Your task to perform on an android device: Add corsair k70 to the cart on walmart, then select checkout. Image 0: 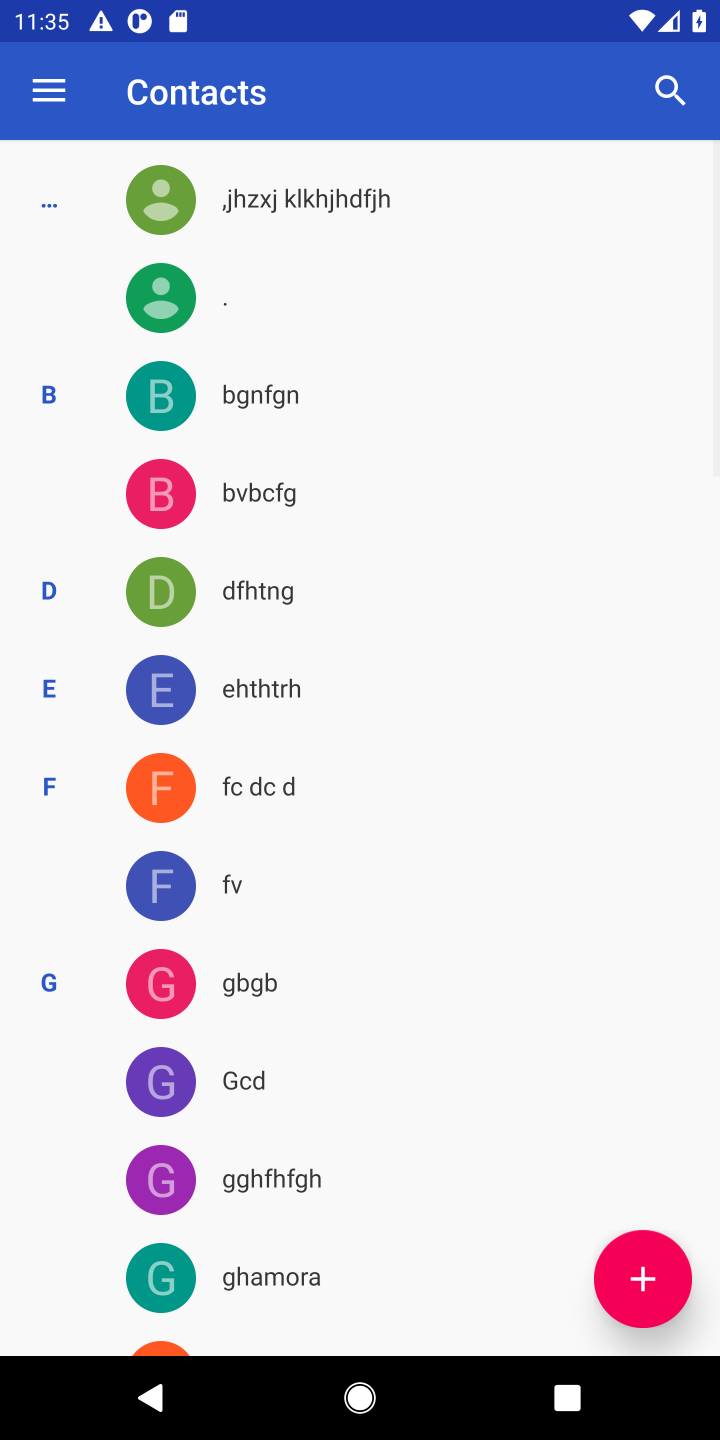
Step 0: press home button
Your task to perform on an android device: Add corsair k70 to the cart on walmart, then select checkout. Image 1: 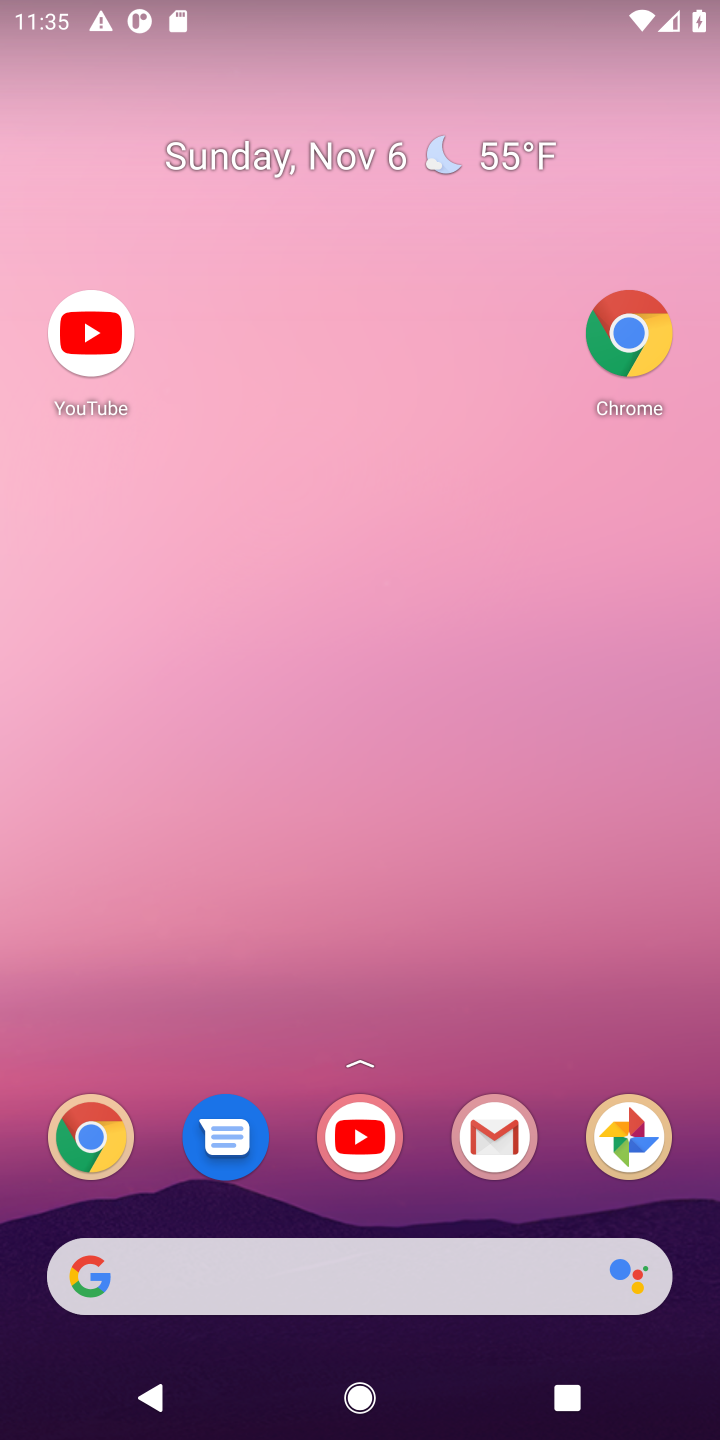
Step 1: drag from (414, 1213) to (322, 175)
Your task to perform on an android device: Add corsair k70 to the cart on walmart, then select checkout. Image 2: 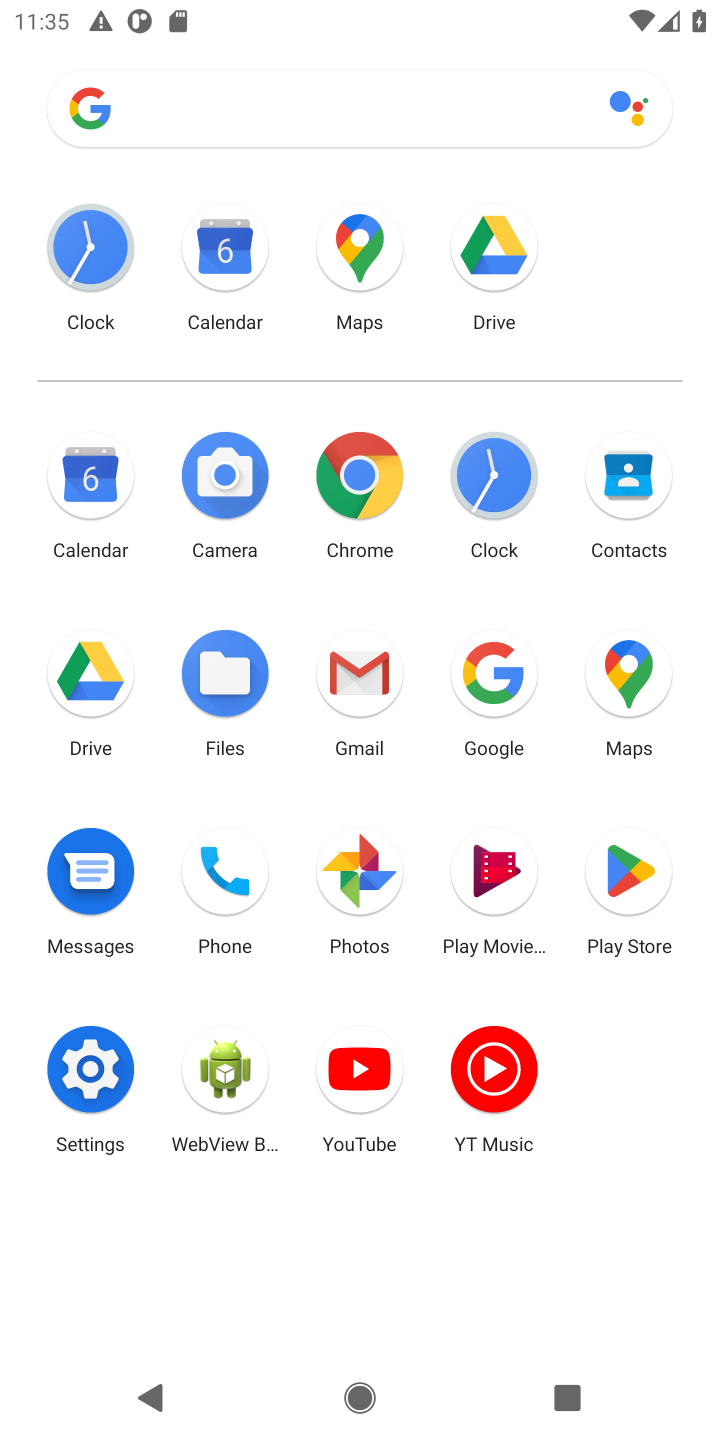
Step 2: click (361, 490)
Your task to perform on an android device: Add corsair k70 to the cart on walmart, then select checkout. Image 3: 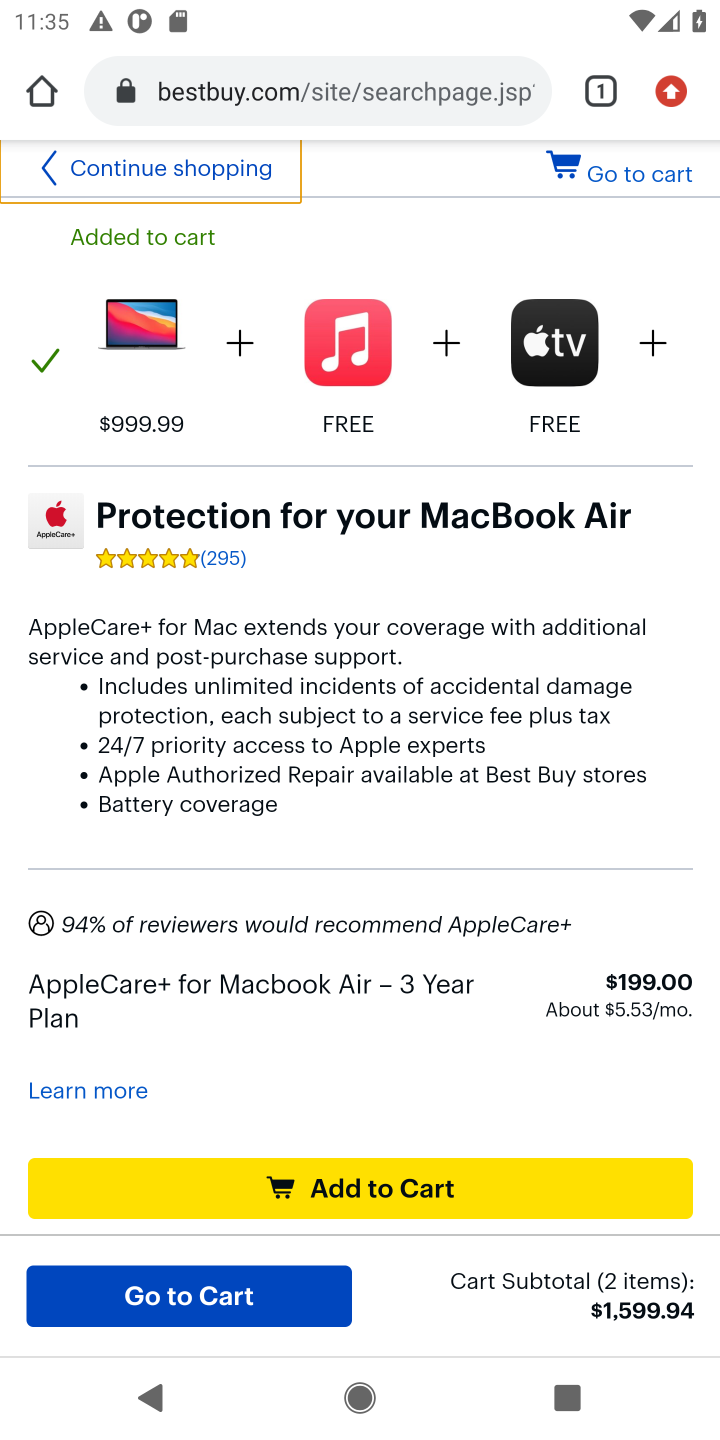
Step 3: click (435, 74)
Your task to perform on an android device: Add corsair k70 to the cart on walmart, then select checkout. Image 4: 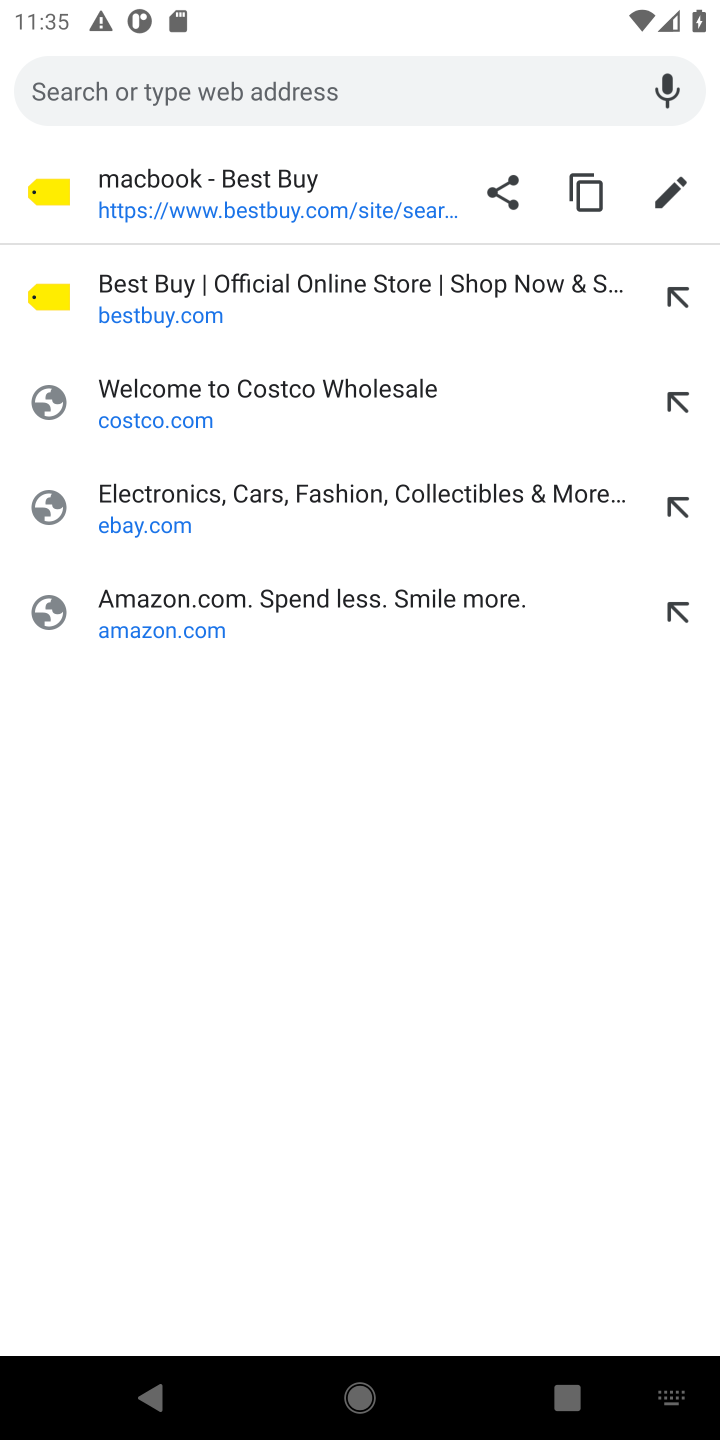
Step 4: type "walmart.com"
Your task to perform on an android device: Add corsair k70 to the cart on walmart, then select checkout. Image 5: 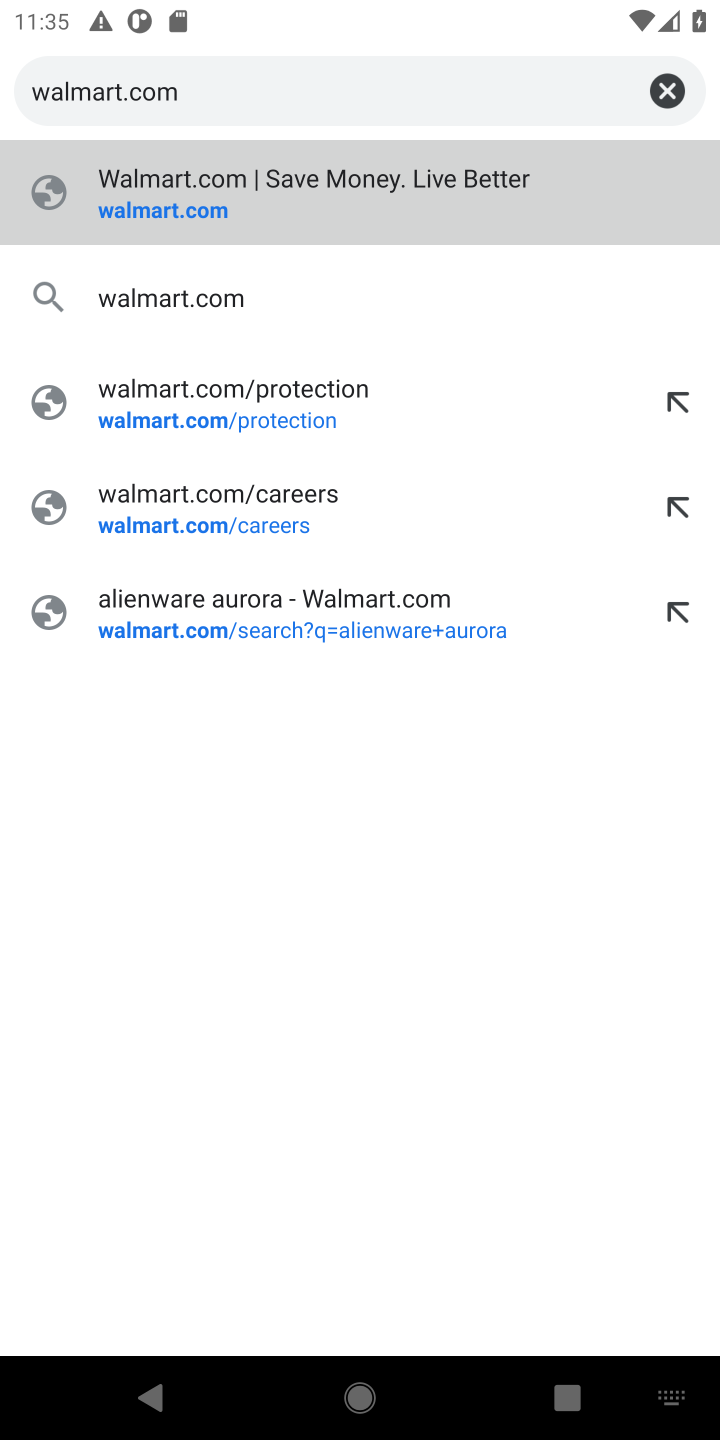
Step 5: press enter
Your task to perform on an android device: Add corsair k70 to the cart on walmart, then select checkout. Image 6: 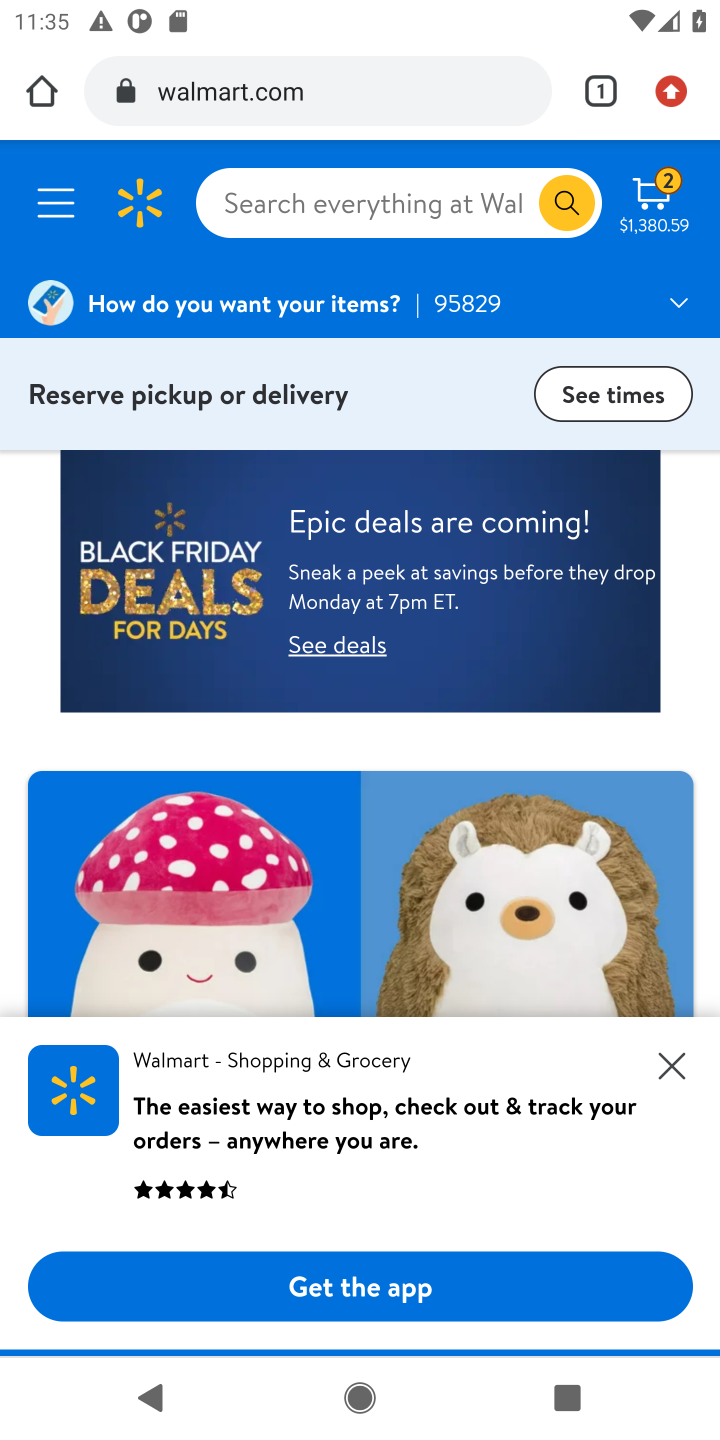
Step 6: click (274, 195)
Your task to perform on an android device: Add corsair k70 to the cart on walmart, then select checkout. Image 7: 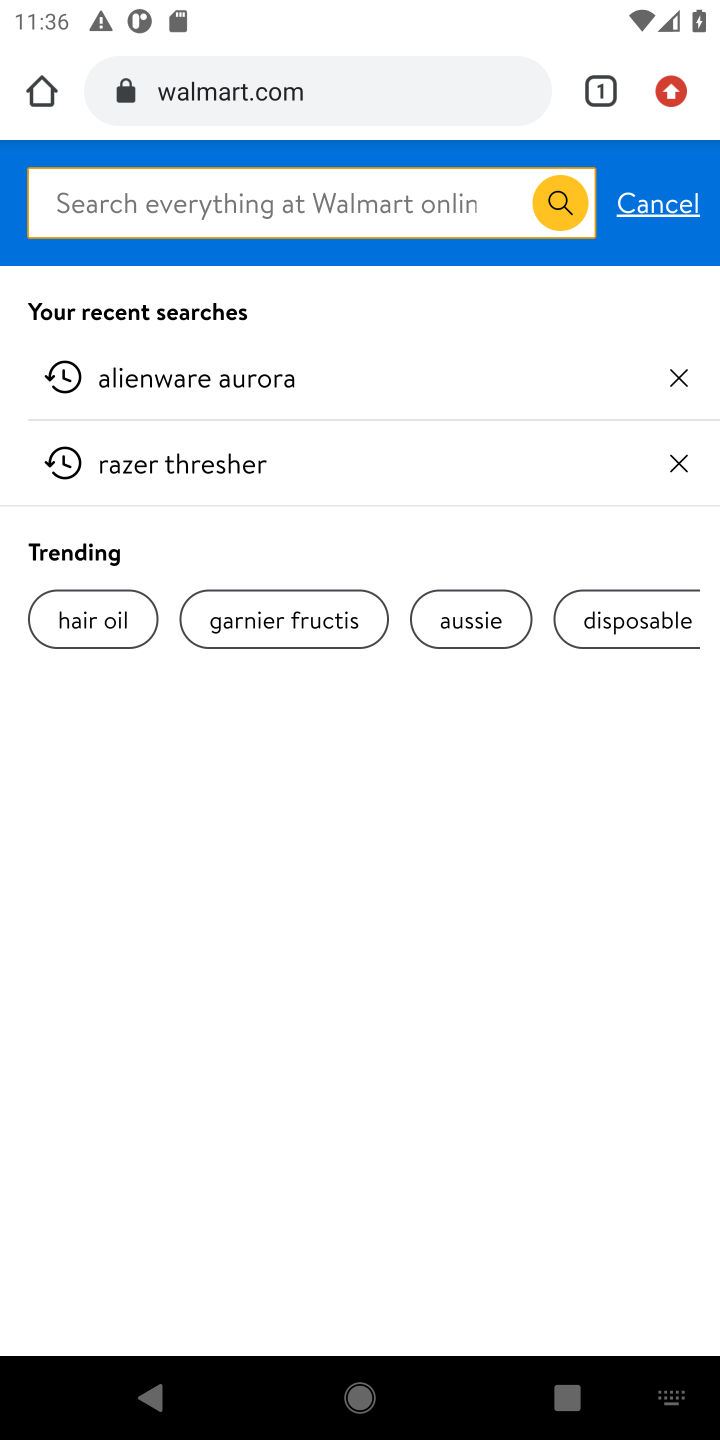
Step 7: type "corsair k70"
Your task to perform on an android device: Add corsair k70 to the cart on walmart, then select checkout. Image 8: 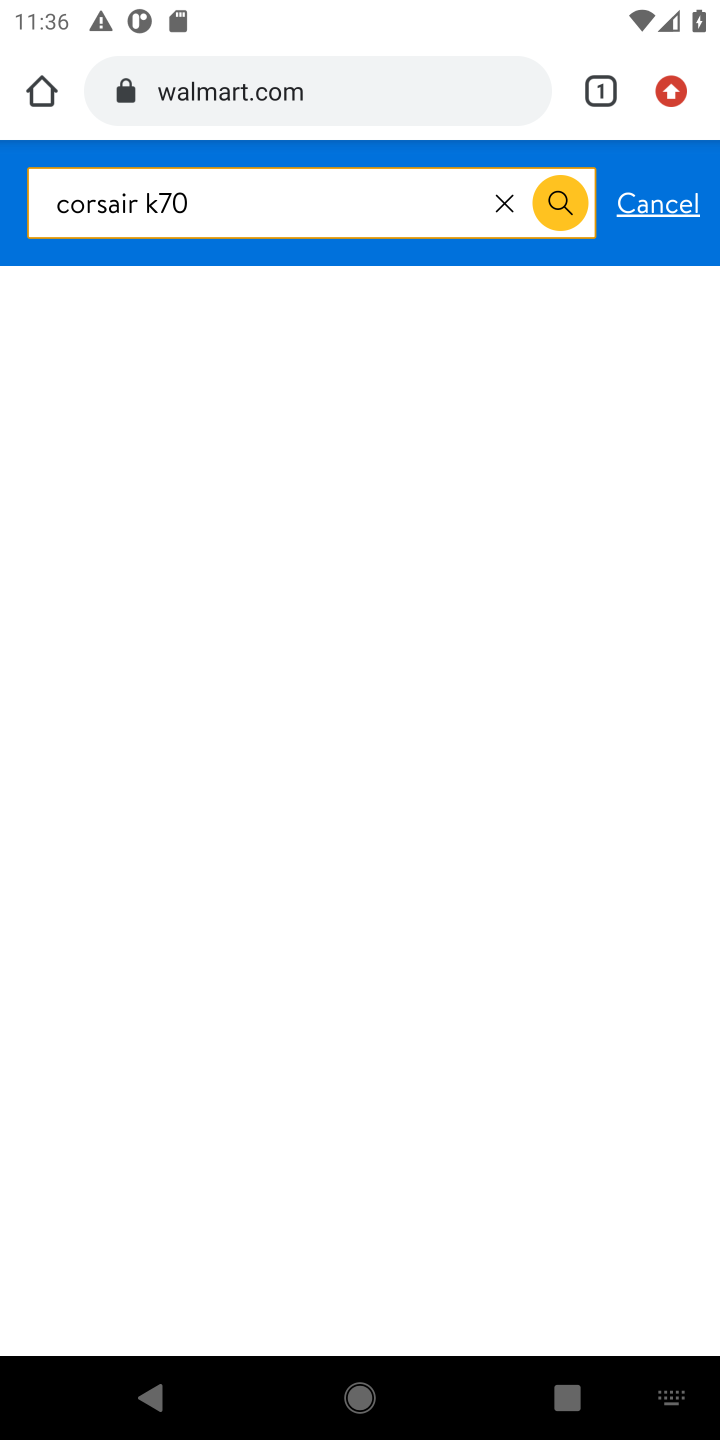
Step 8: press enter
Your task to perform on an android device: Add corsair k70 to the cart on walmart, then select checkout. Image 9: 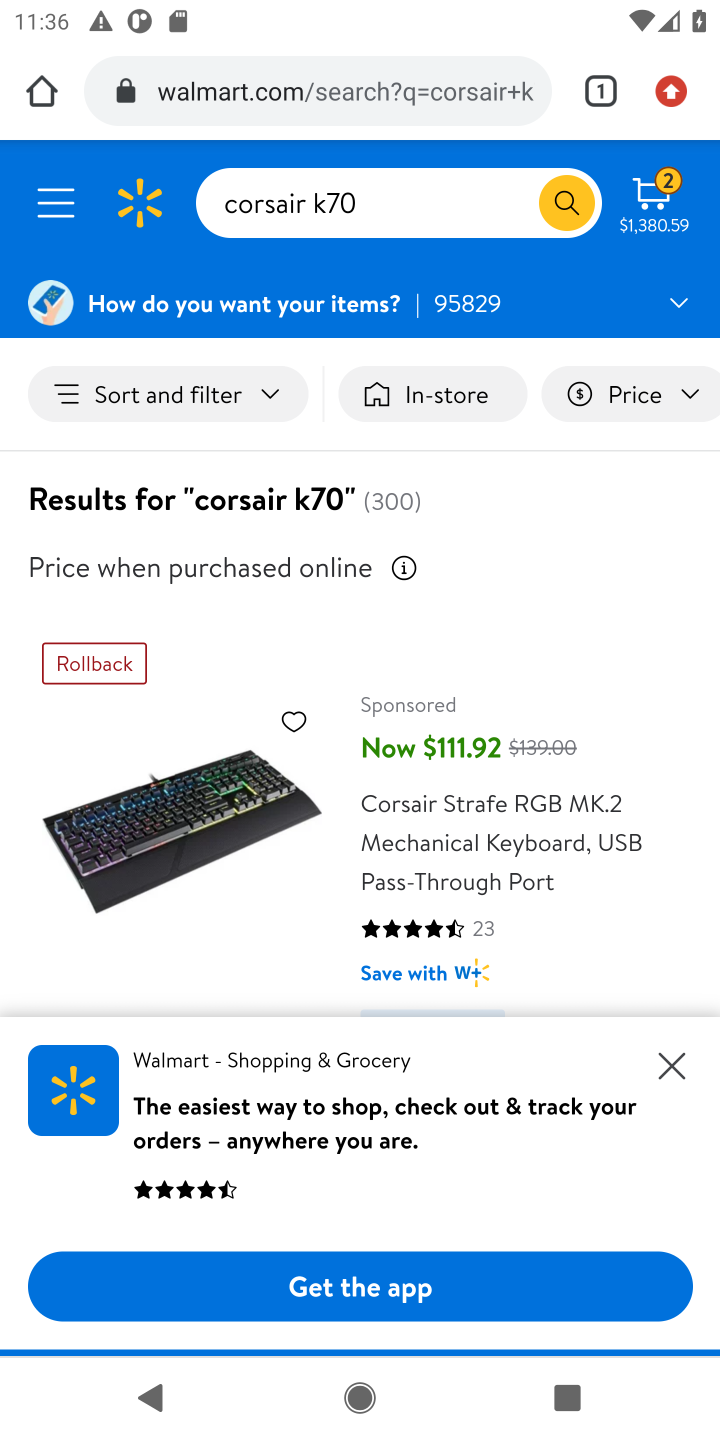
Step 9: drag from (455, 881) to (438, 123)
Your task to perform on an android device: Add corsair k70 to the cart on walmart, then select checkout. Image 10: 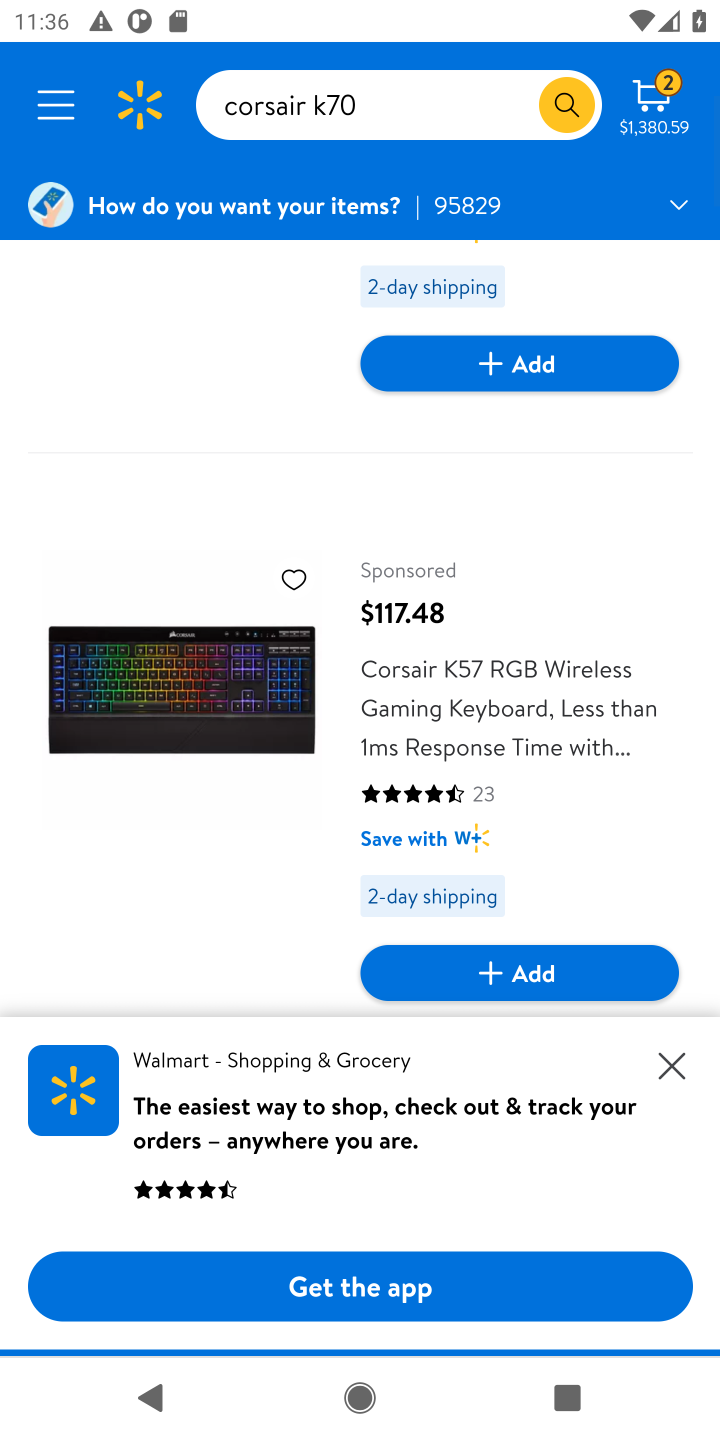
Step 10: drag from (542, 864) to (499, 162)
Your task to perform on an android device: Add corsair k70 to the cart on walmart, then select checkout. Image 11: 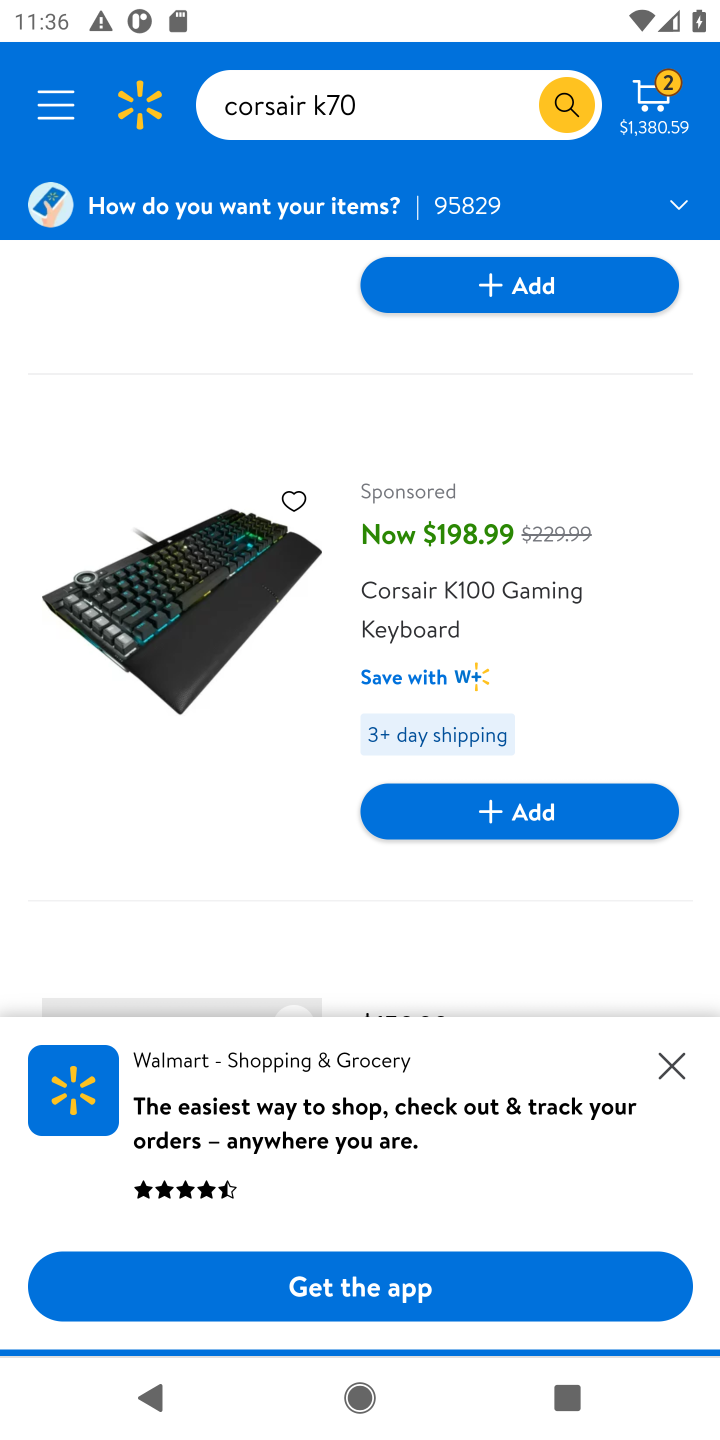
Step 11: drag from (505, 823) to (455, 236)
Your task to perform on an android device: Add corsair k70 to the cart on walmart, then select checkout. Image 12: 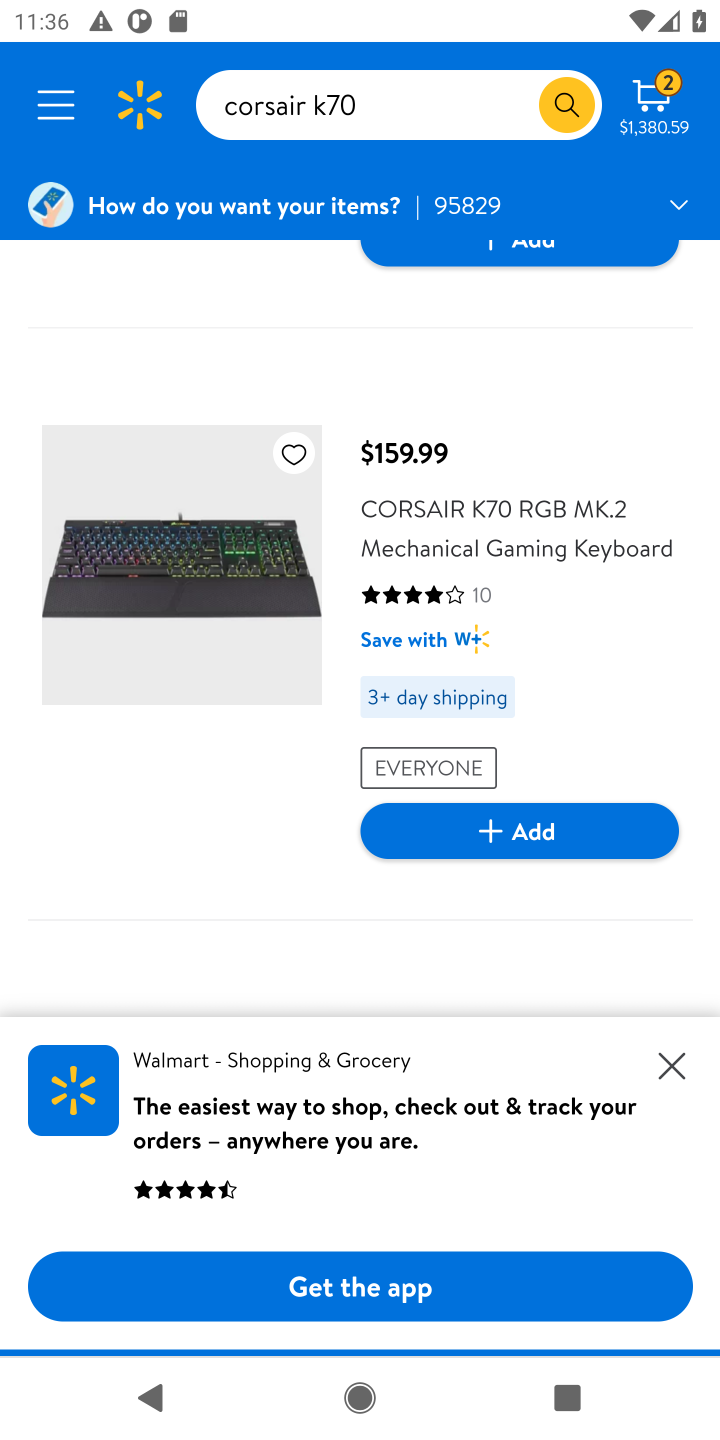
Step 12: drag from (503, 864) to (574, 1183)
Your task to perform on an android device: Add corsair k70 to the cart on walmart, then select checkout. Image 13: 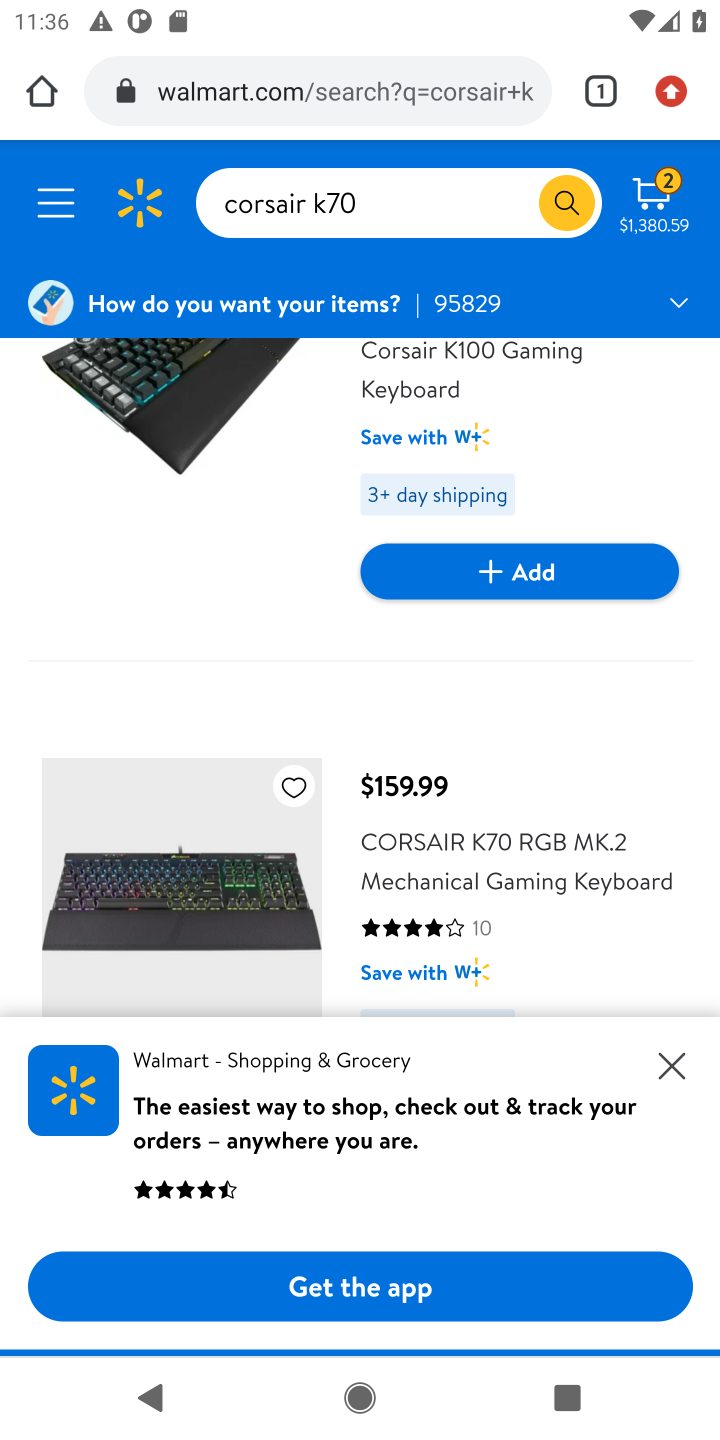
Step 13: drag from (486, 440) to (495, 273)
Your task to perform on an android device: Add corsair k70 to the cart on walmart, then select checkout. Image 14: 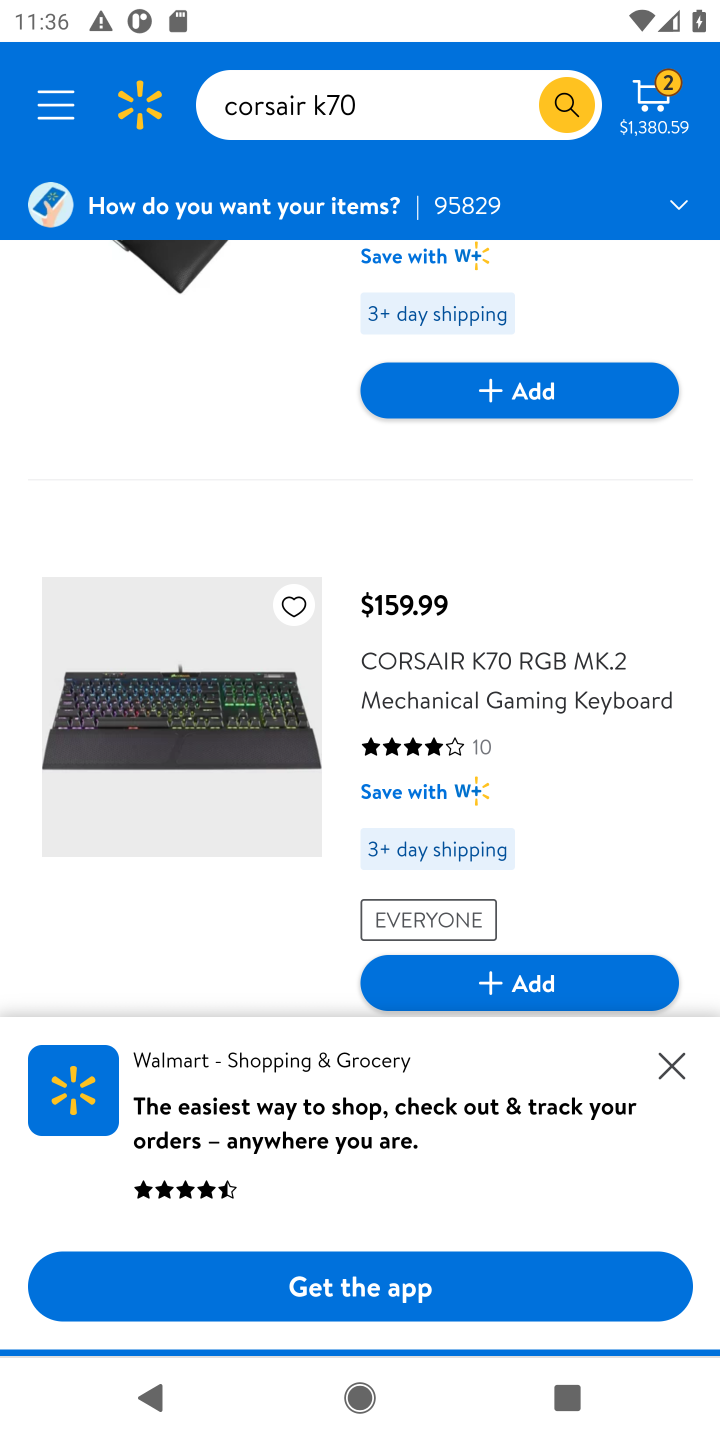
Step 14: click (578, 1010)
Your task to perform on an android device: Add corsair k70 to the cart on walmart, then select checkout. Image 15: 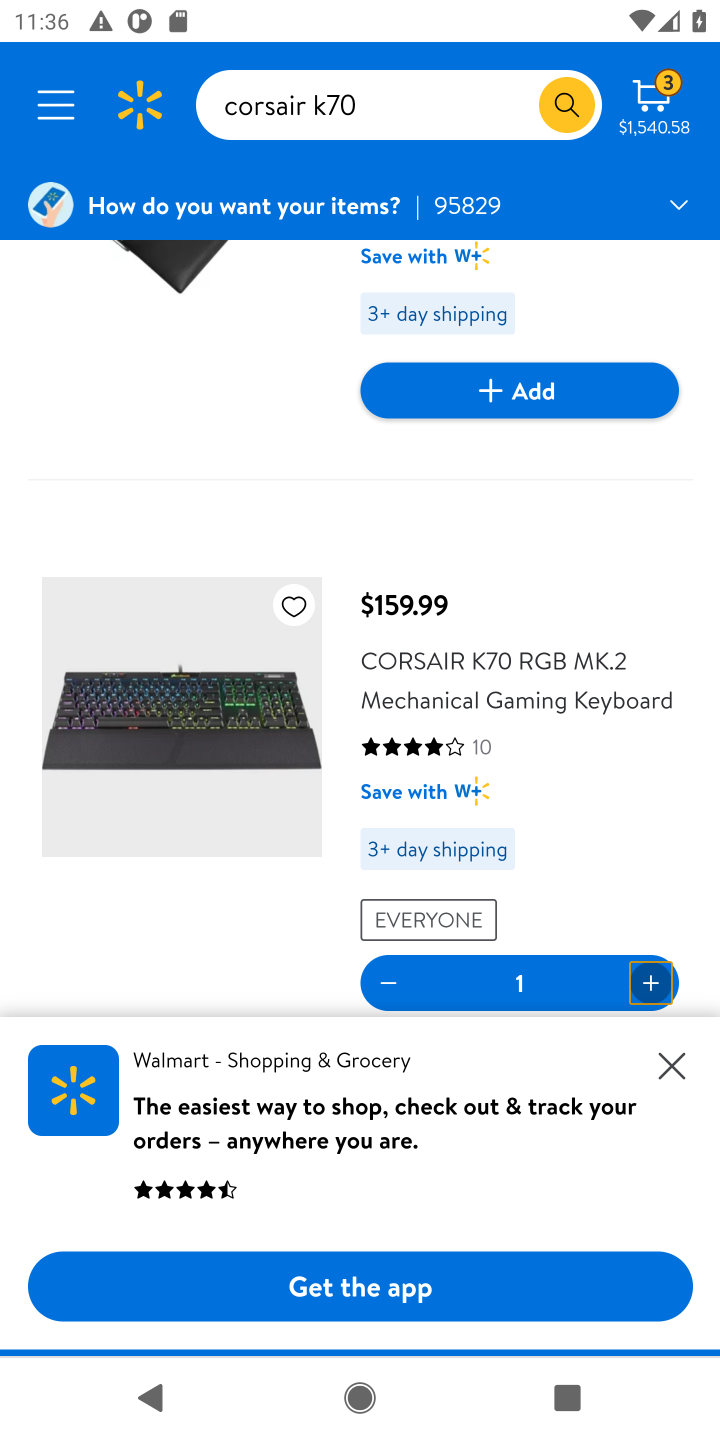
Step 15: click (648, 103)
Your task to perform on an android device: Add corsair k70 to the cart on walmart, then select checkout. Image 16: 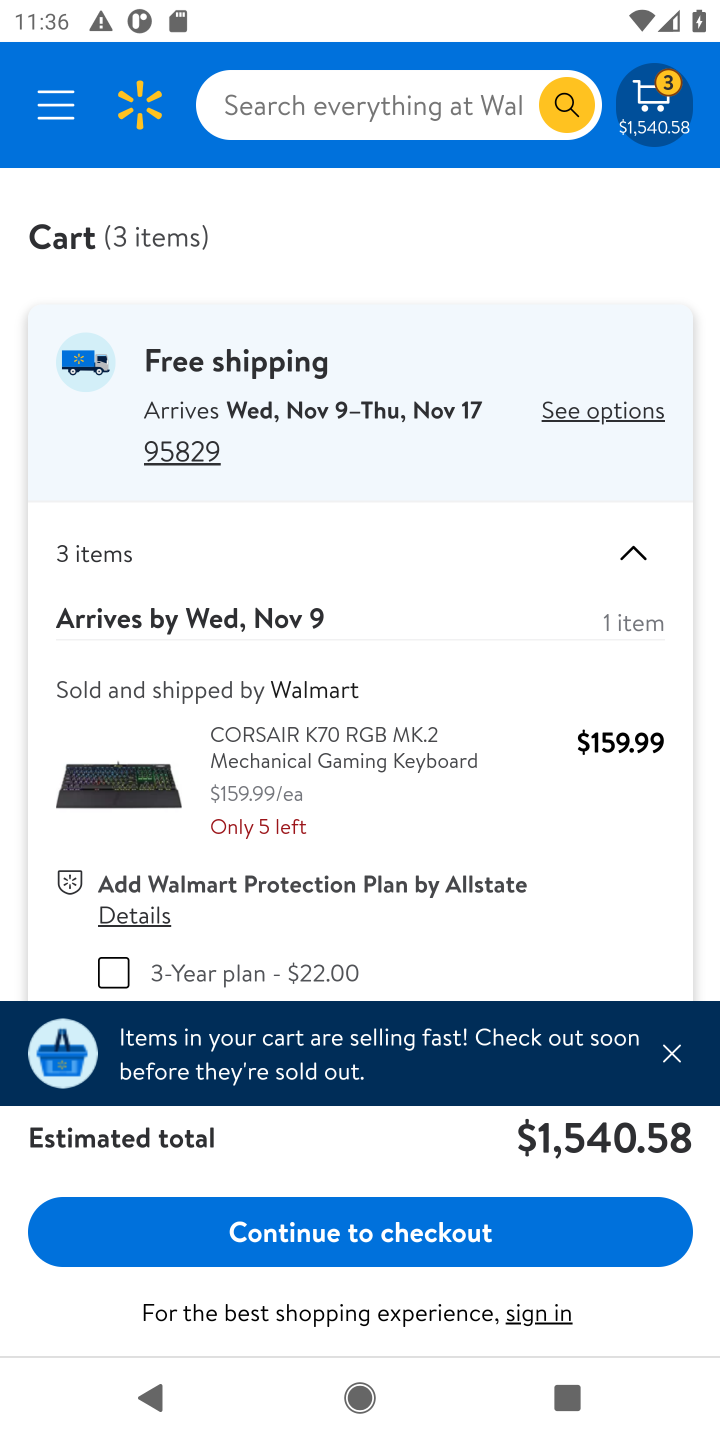
Step 16: click (458, 1232)
Your task to perform on an android device: Add corsair k70 to the cart on walmart, then select checkout. Image 17: 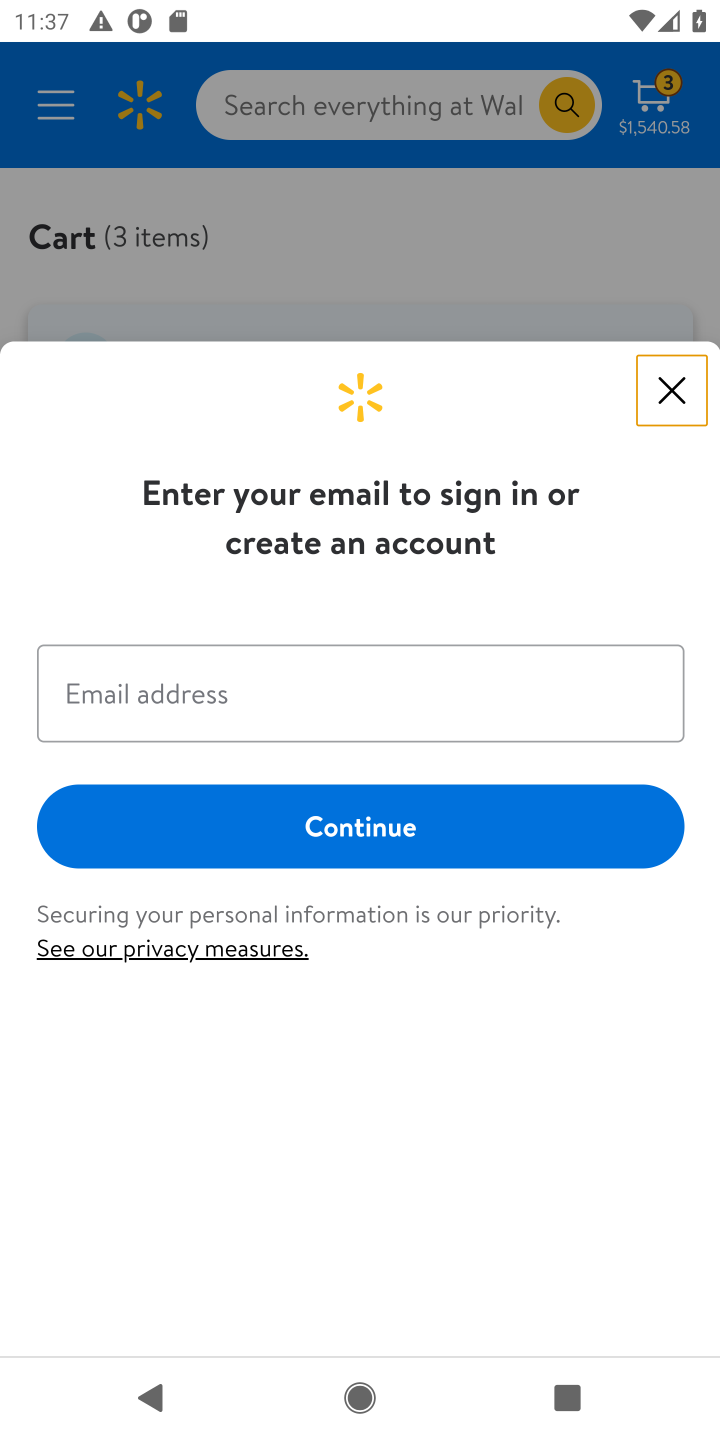
Step 17: task complete